Your task to perform on an android device: Search for pizza restaurants on Maps Image 0: 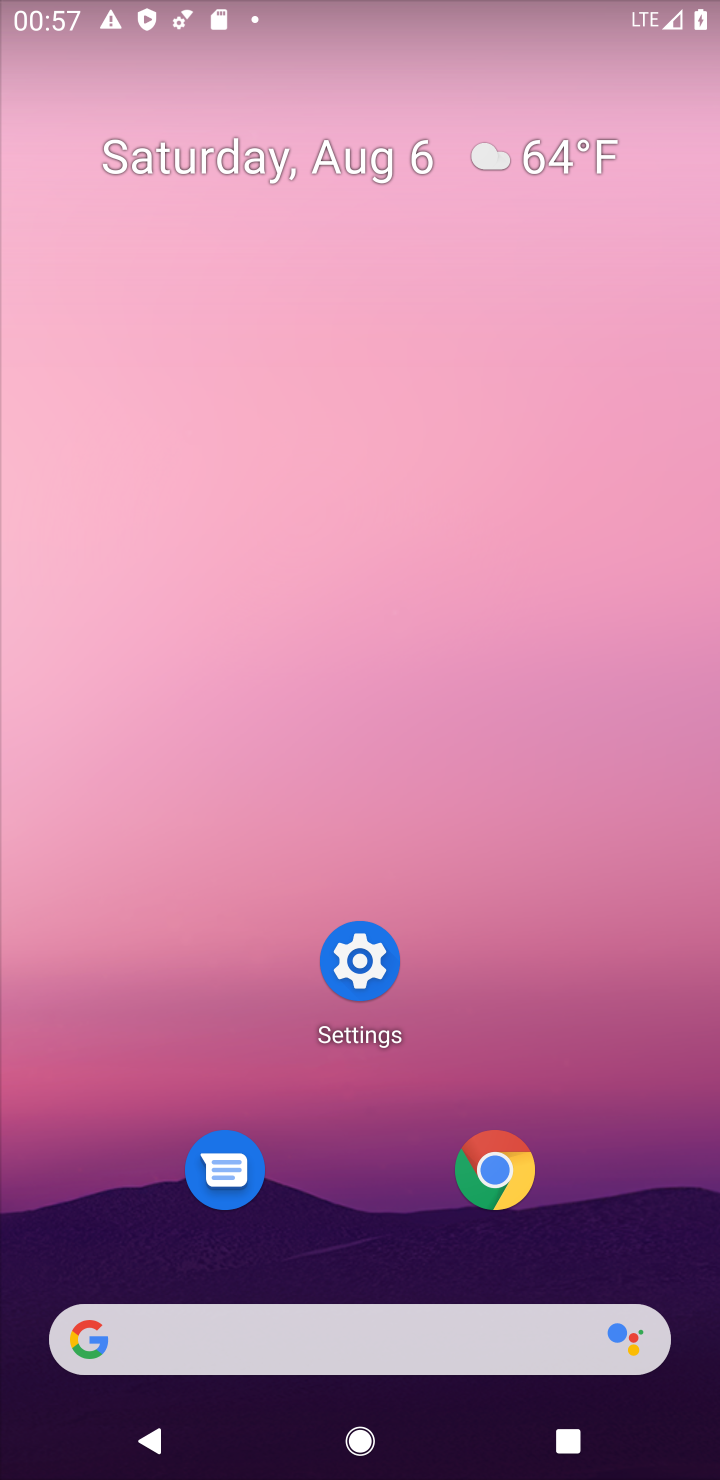
Step 0: drag from (574, 1096) to (624, 278)
Your task to perform on an android device: Search for pizza restaurants on Maps Image 1: 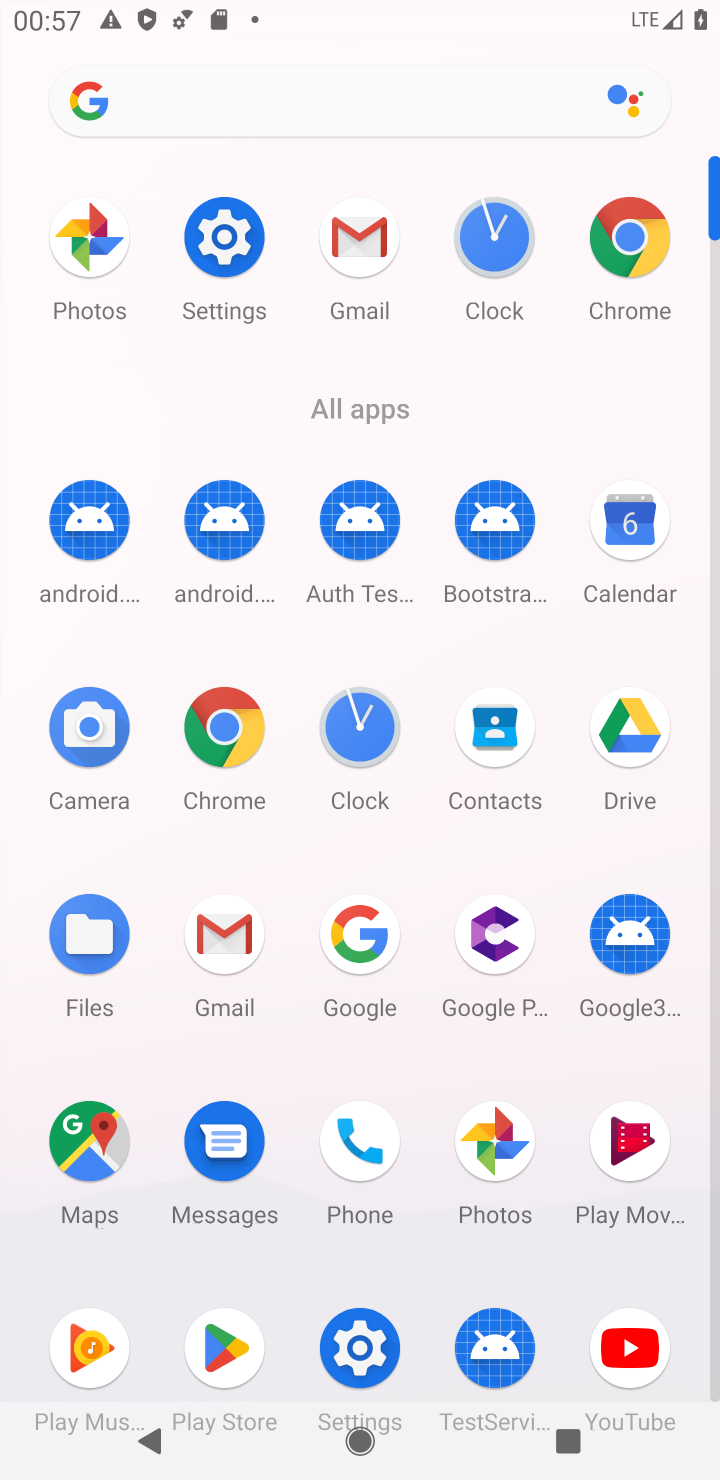
Step 1: click (85, 1147)
Your task to perform on an android device: Search for pizza restaurants on Maps Image 2: 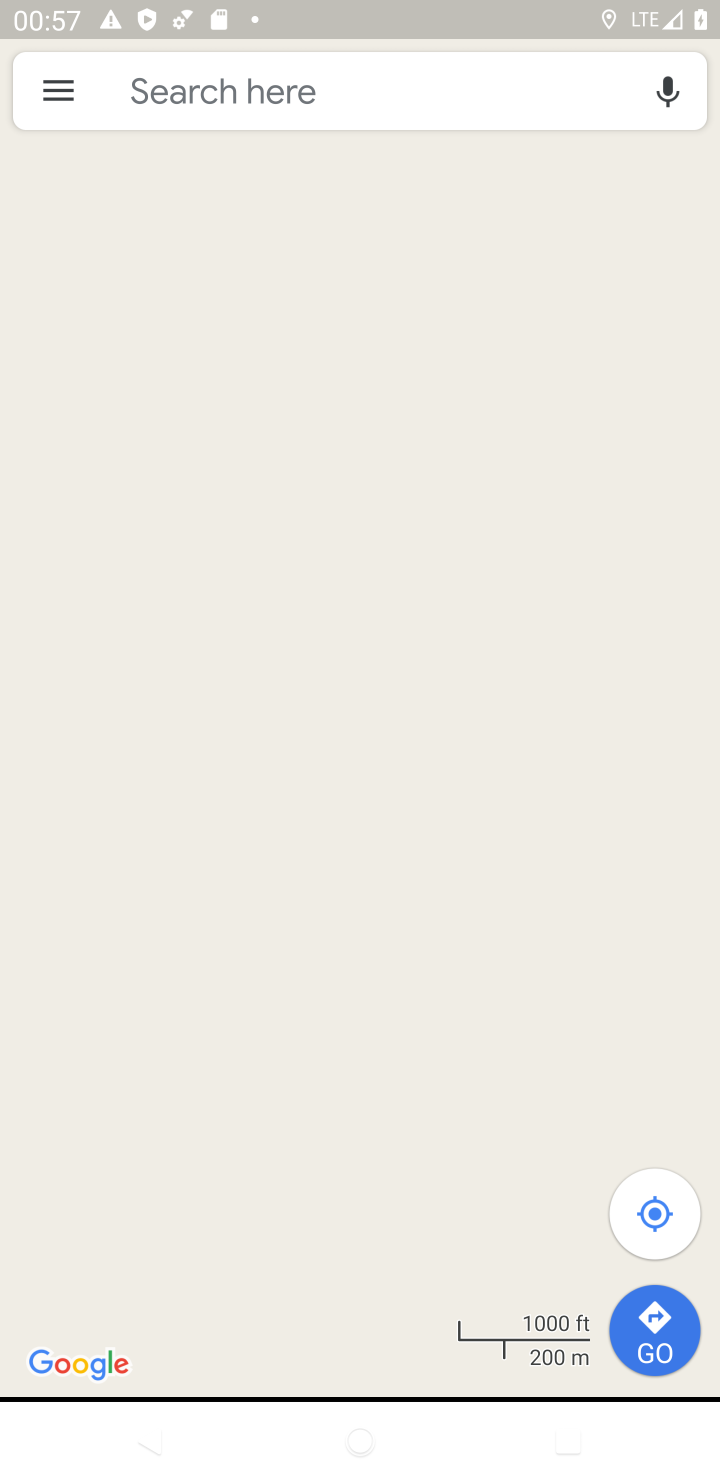
Step 2: click (270, 83)
Your task to perform on an android device: Search for pizza restaurants on Maps Image 3: 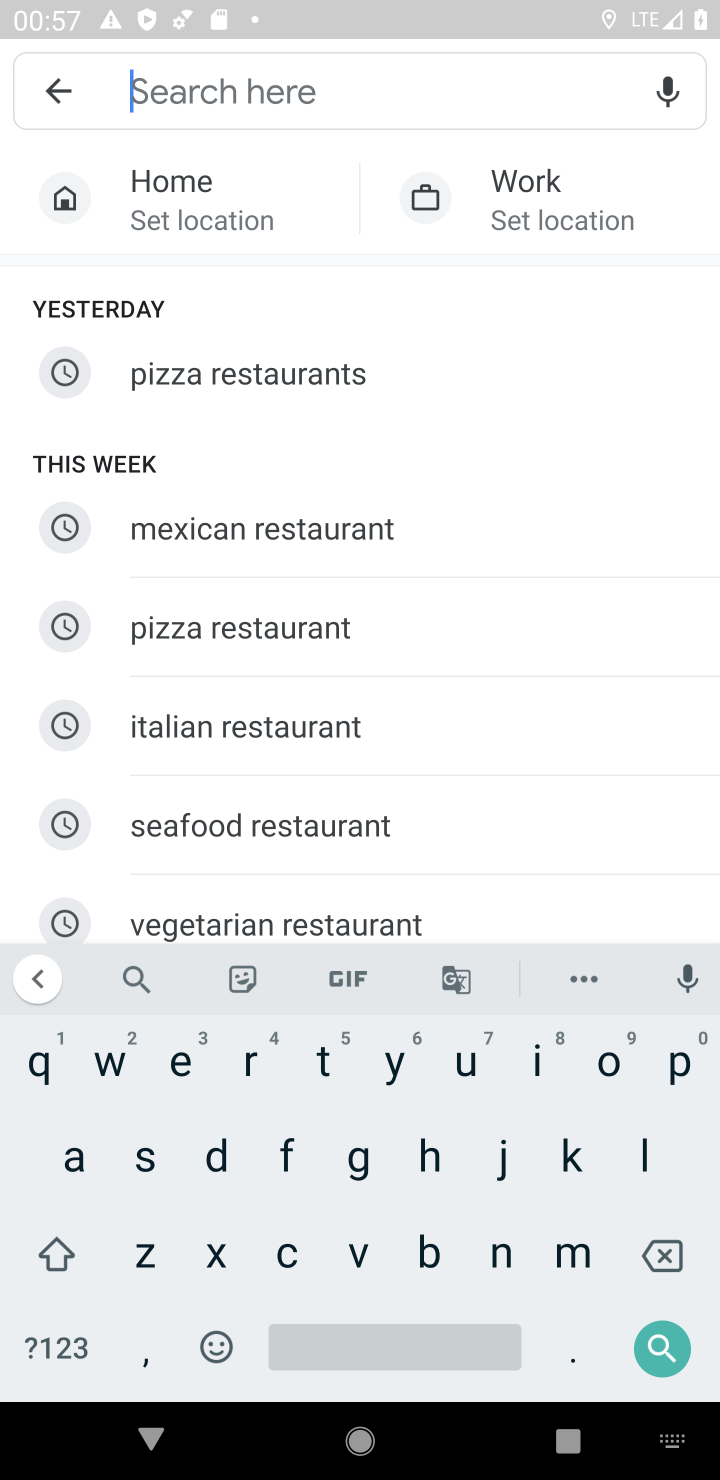
Step 3: type "pizza"
Your task to perform on an android device: Search for pizza restaurants on Maps Image 4: 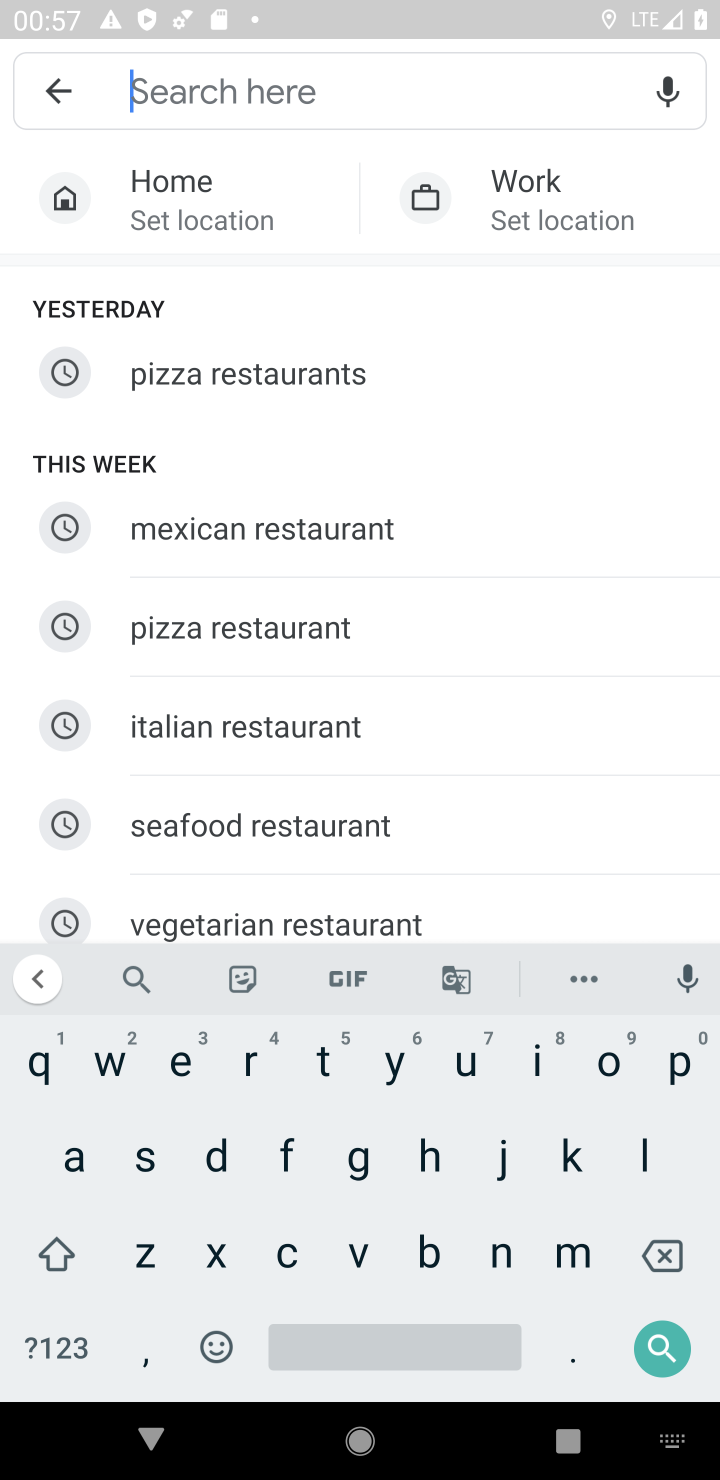
Step 4: click (240, 364)
Your task to perform on an android device: Search for pizza restaurants on Maps Image 5: 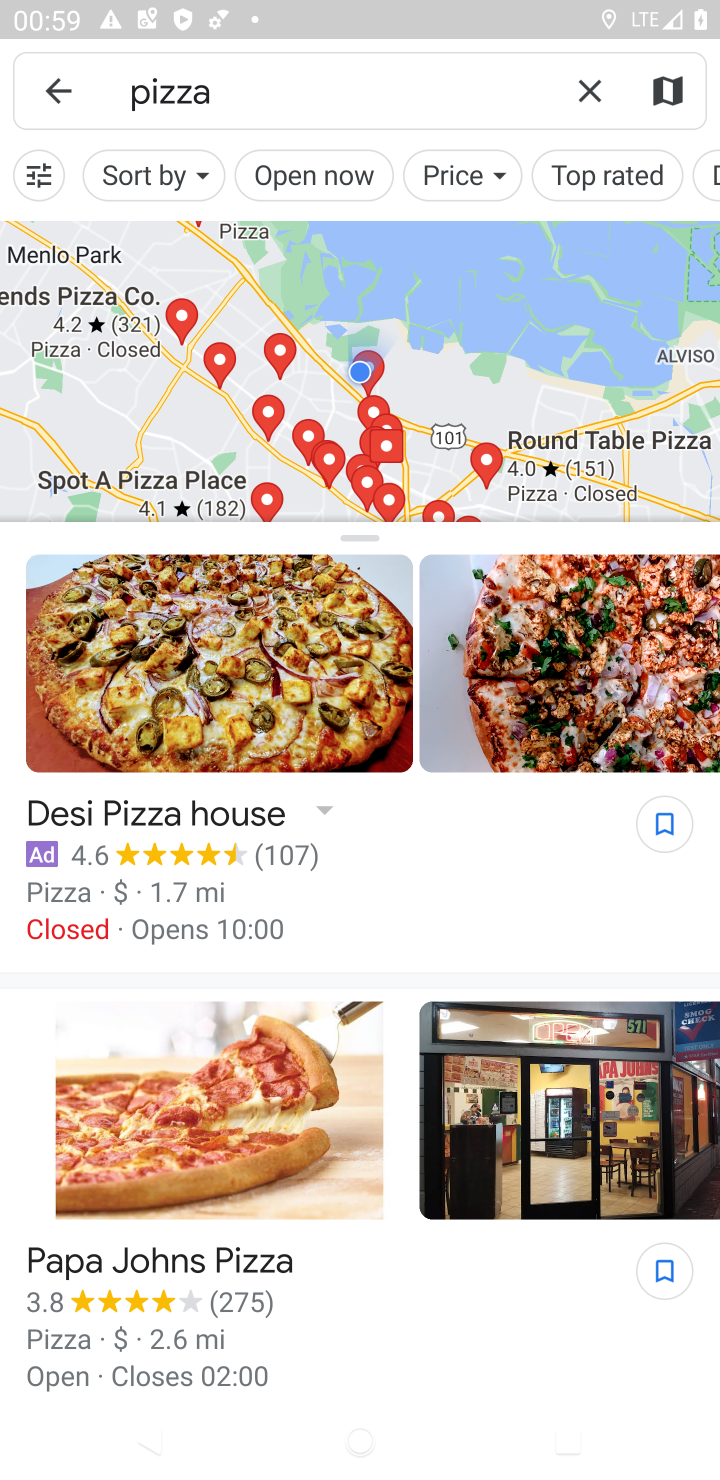
Step 5: task complete